Your task to perform on an android device: toggle javascript in the chrome app Image 0: 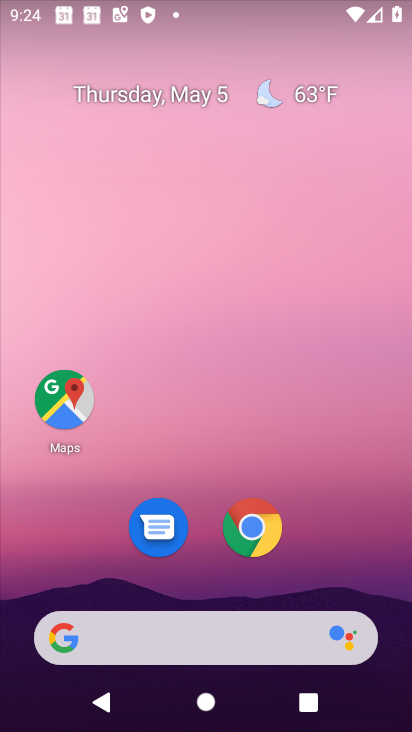
Step 0: click (269, 531)
Your task to perform on an android device: toggle javascript in the chrome app Image 1: 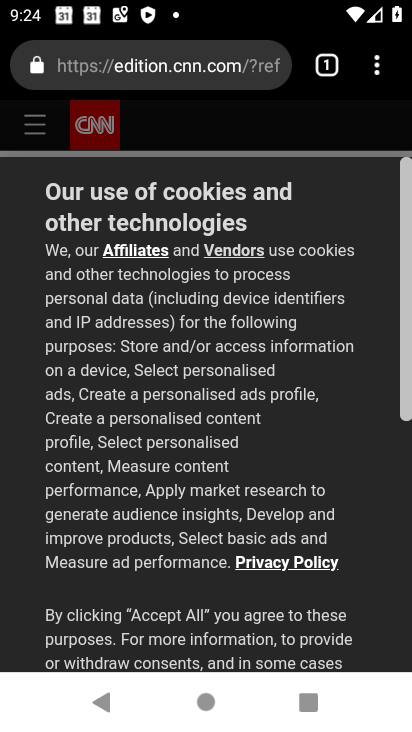
Step 1: drag from (373, 66) to (211, 582)
Your task to perform on an android device: toggle javascript in the chrome app Image 2: 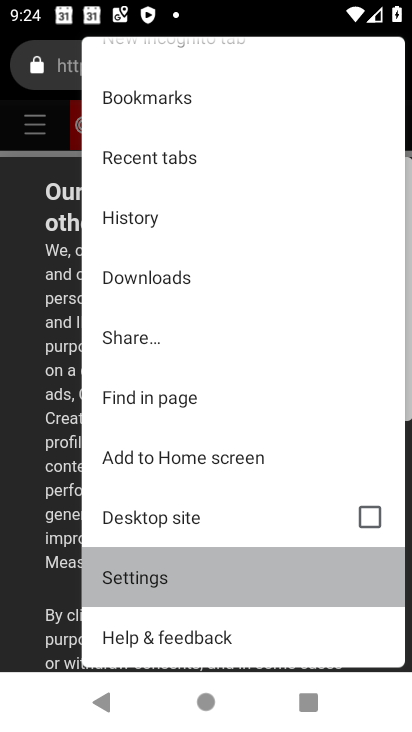
Step 2: click (211, 582)
Your task to perform on an android device: toggle javascript in the chrome app Image 3: 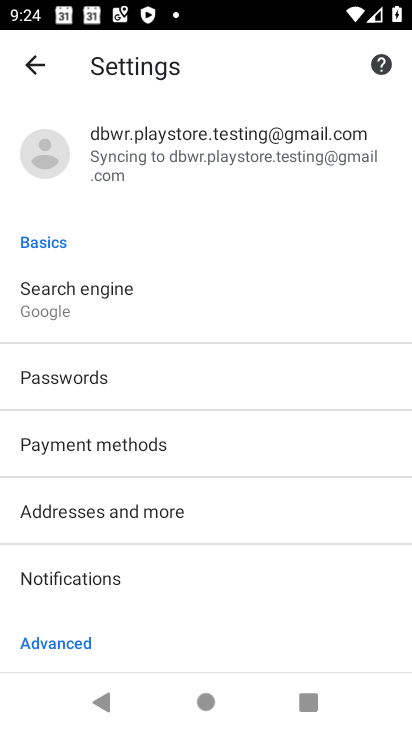
Step 3: drag from (316, 619) to (375, 16)
Your task to perform on an android device: toggle javascript in the chrome app Image 4: 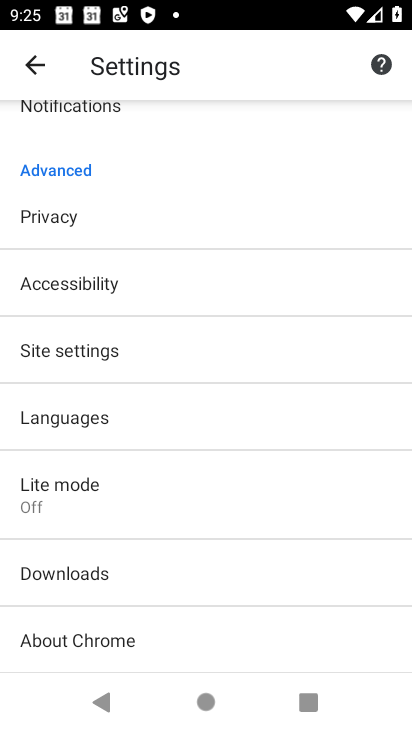
Step 4: click (63, 336)
Your task to perform on an android device: toggle javascript in the chrome app Image 5: 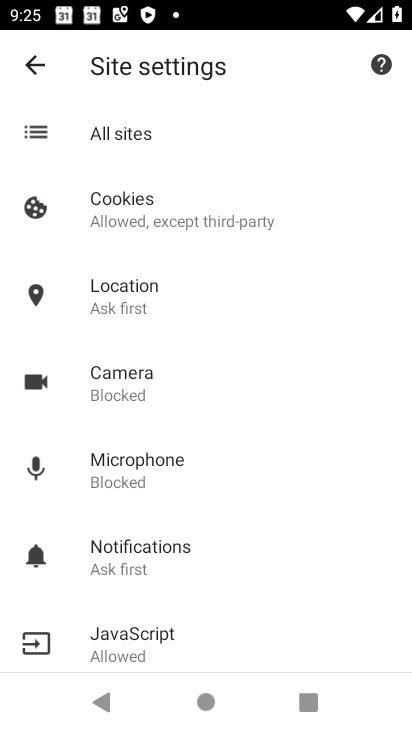
Step 5: click (143, 645)
Your task to perform on an android device: toggle javascript in the chrome app Image 6: 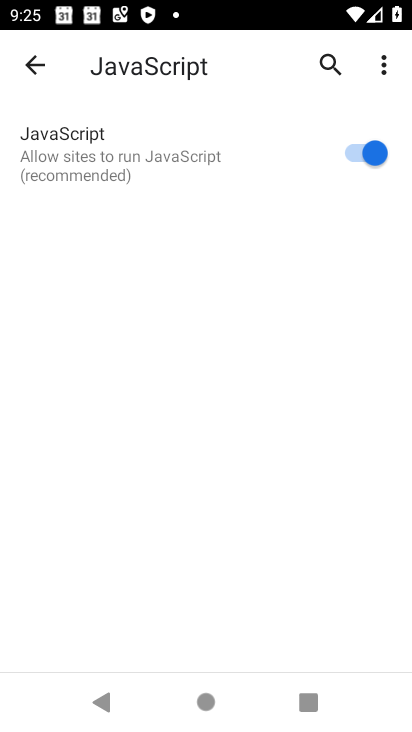
Step 6: click (368, 142)
Your task to perform on an android device: toggle javascript in the chrome app Image 7: 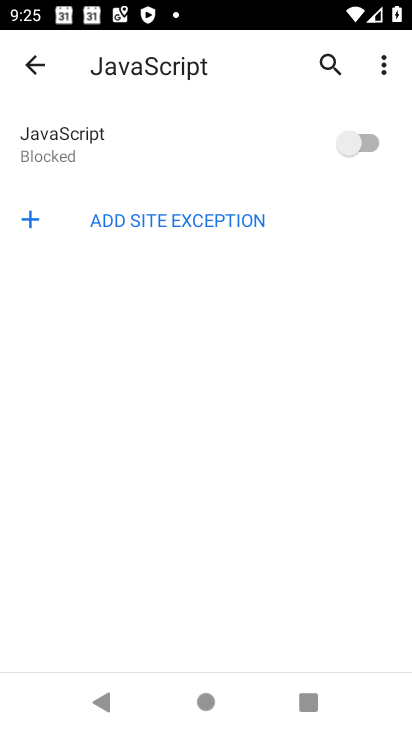
Step 7: task complete